Your task to perform on an android device: Open settings Image 0: 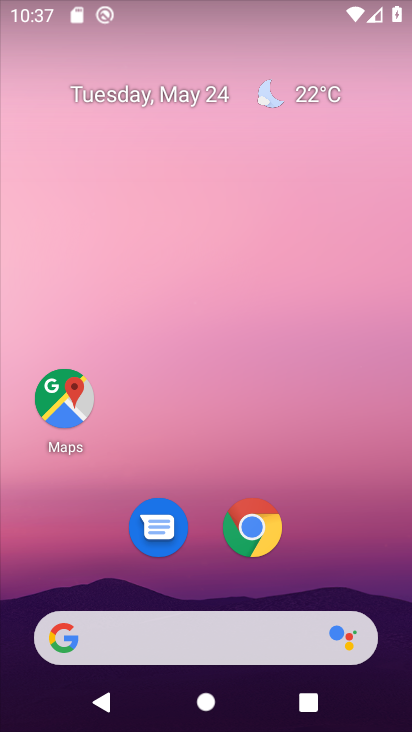
Step 0: press home button
Your task to perform on an android device: Open settings Image 1: 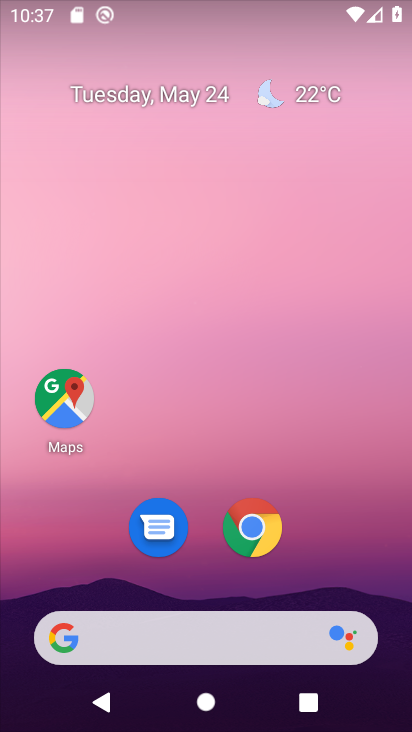
Step 1: drag from (159, 631) to (274, 178)
Your task to perform on an android device: Open settings Image 2: 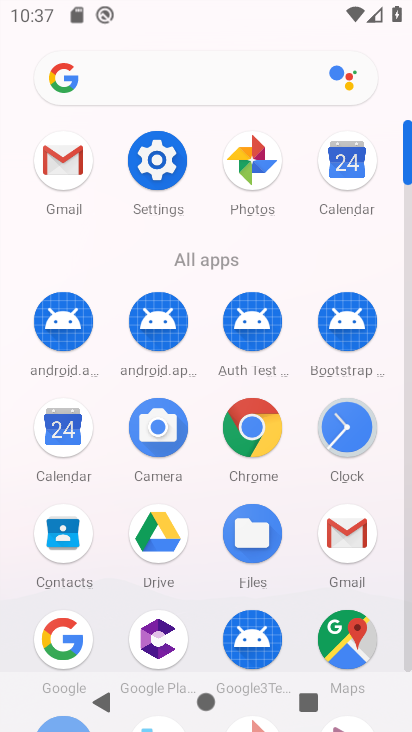
Step 2: click (159, 174)
Your task to perform on an android device: Open settings Image 3: 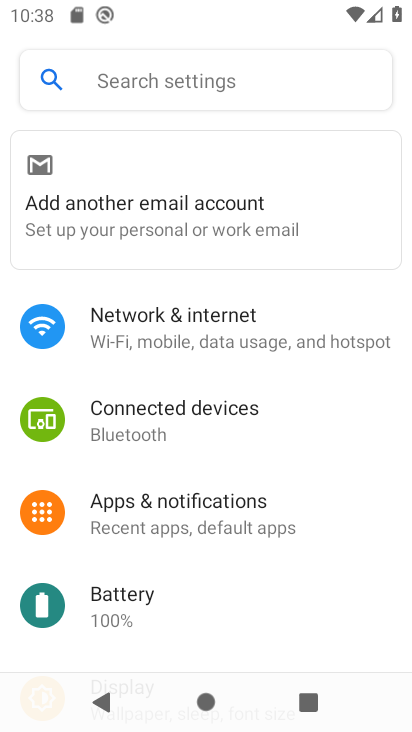
Step 3: task complete